Your task to perform on an android device: make emails show in primary in the gmail app Image 0: 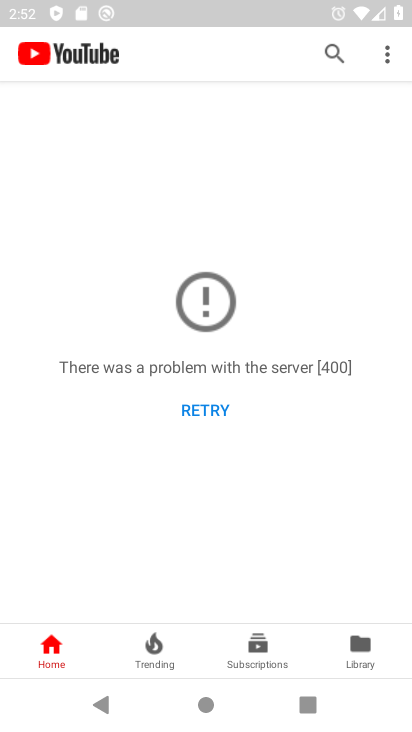
Step 0: press home button
Your task to perform on an android device: make emails show in primary in the gmail app Image 1: 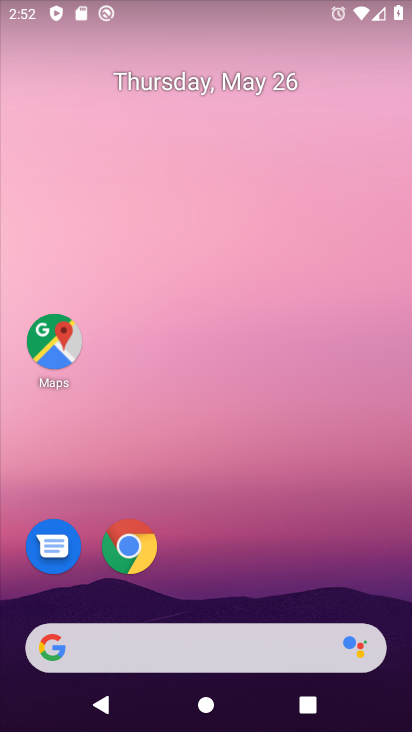
Step 1: drag from (394, 692) to (372, 226)
Your task to perform on an android device: make emails show in primary in the gmail app Image 2: 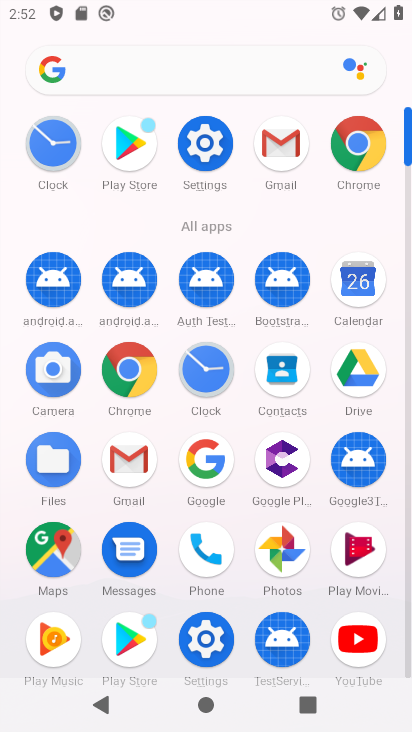
Step 2: click (140, 452)
Your task to perform on an android device: make emails show in primary in the gmail app Image 3: 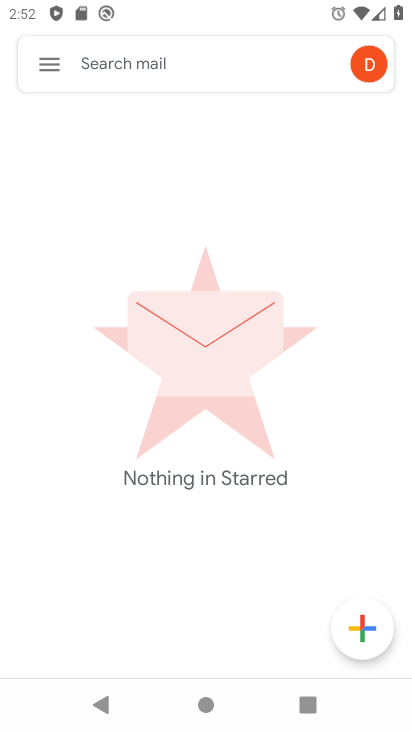
Step 3: click (53, 56)
Your task to perform on an android device: make emails show in primary in the gmail app Image 4: 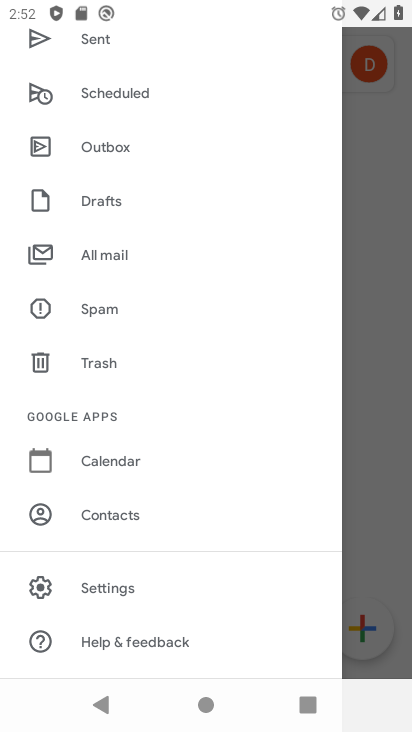
Step 4: click (114, 581)
Your task to perform on an android device: make emails show in primary in the gmail app Image 5: 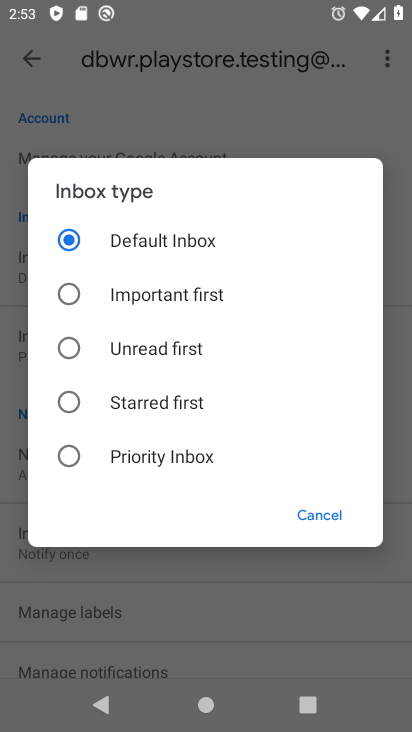
Step 5: press back button
Your task to perform on an android device: make emails show in primary in the gmail app Image 6: 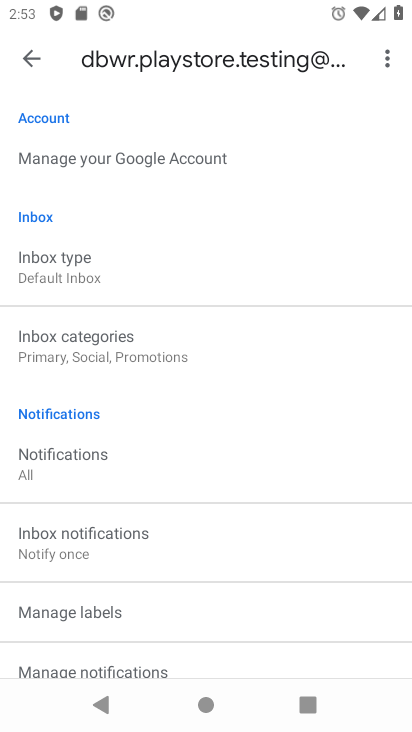
Step 6: click (50, 348)
Your task to perform on an android device: make emails show in primary in the gmail app Image 7: 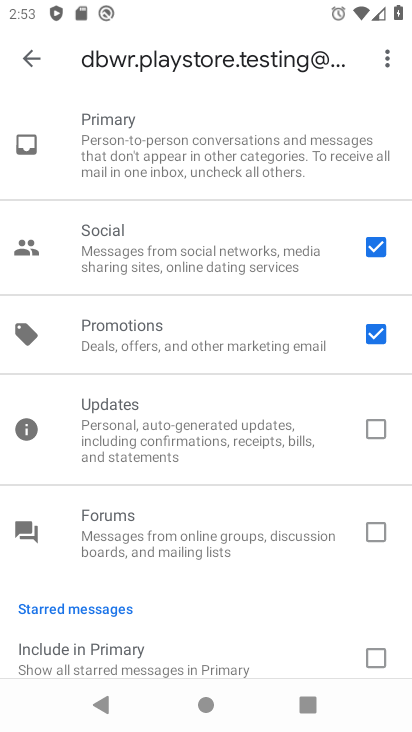
Step 7: click (374, 323)
Your task to perform on an android device: make emails show in primary in the gmail app Image 8: 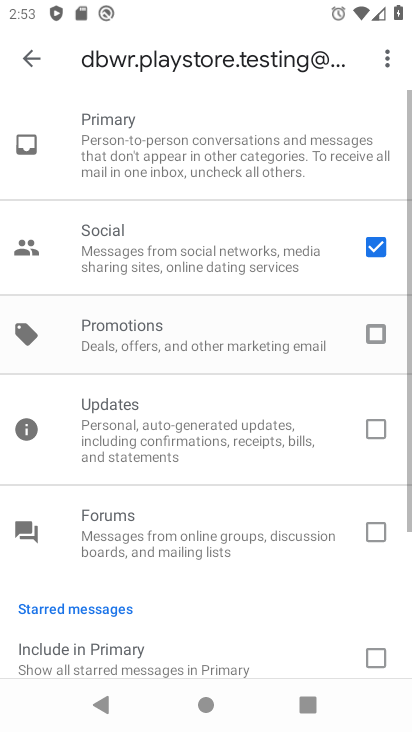
Step 8: click (382, 242)
Your task to perform on an android device: make emails show in primary in the gmail app Image 9: 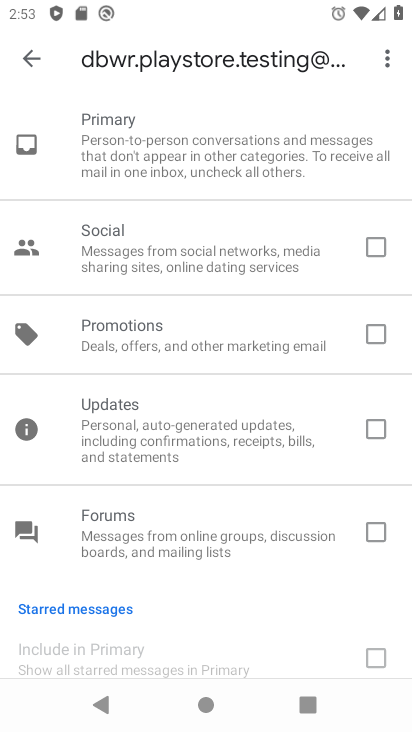
Step 9: task complete